Your task to perform on an android device: Open calendar and show me the second week of next month Image 0: 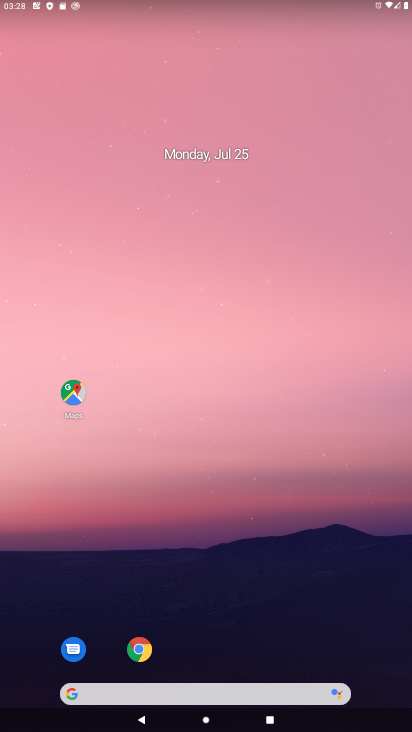
Step 0: drag from (389, 676) to (344, 103)
Your task to perform on an android device: Open calendar and show me the second week of next month Image 1: 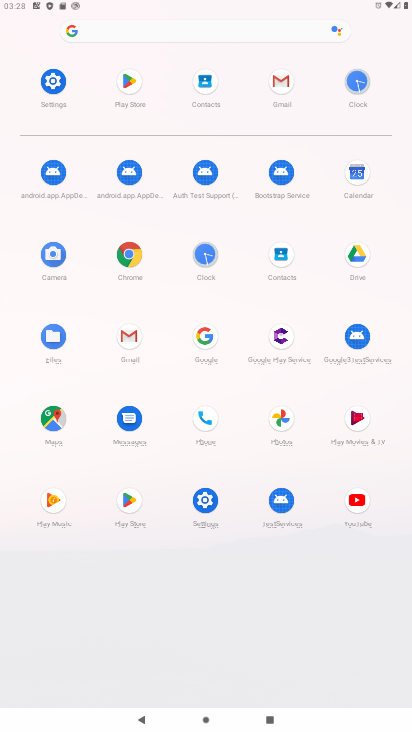
Step 1: click (357, 173)
Your task to perform on an android device: Open calendar and show me the second week of next month Image 2: 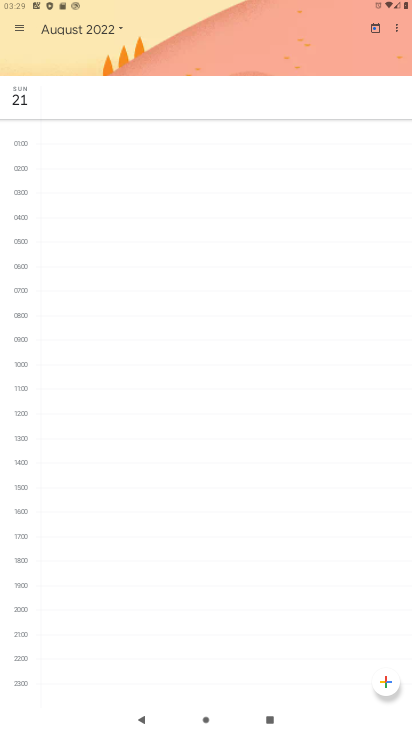
Step 2: click (20, 30)
Your task to perform on an android device: Open calendar and show me the second week of next month Image 3: 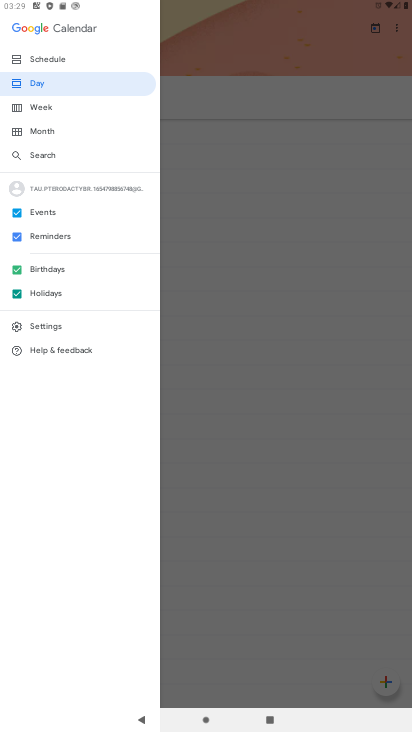
Step 3: click (39, 107)
Your task to perform on an android device: Open calendar and show me the second week of next month Image 4: 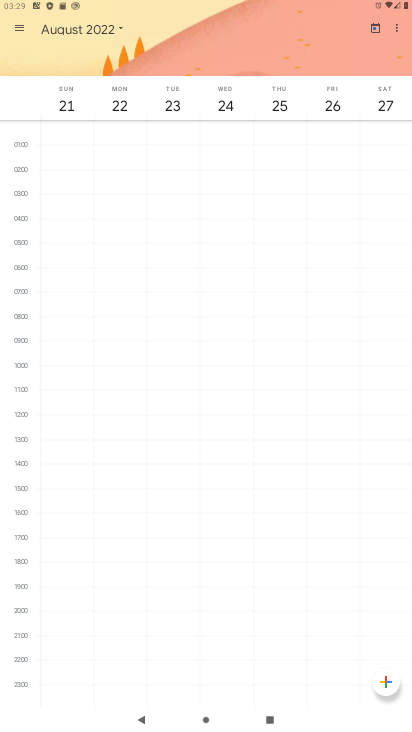
Step 4: click (121, 28)
Your task to perform on an android device: Open calendar and show me the second week of next month Image 5: 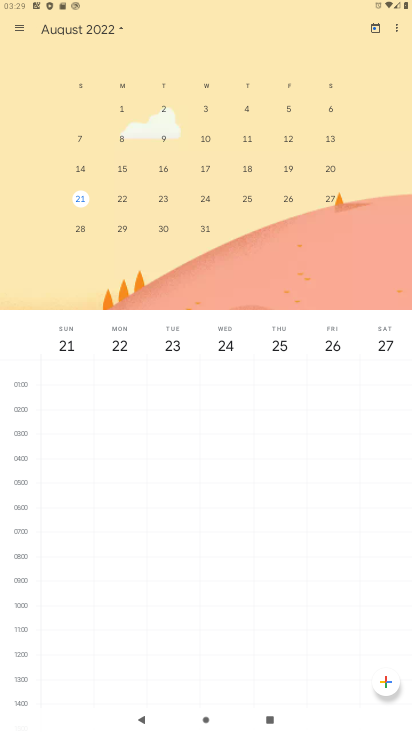
Step 5: click (78, 164)
Your task to perform on an android device: Open calendar and show me the second week of next month Image 6: 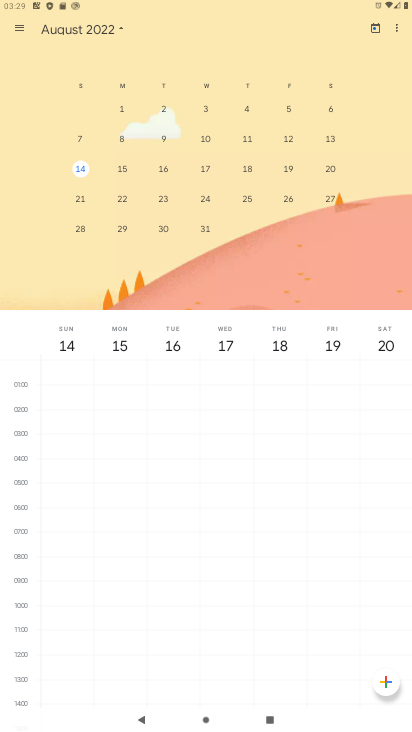
Step 6: task complete